Your task to perform on an android device: Open eBay Image 0: 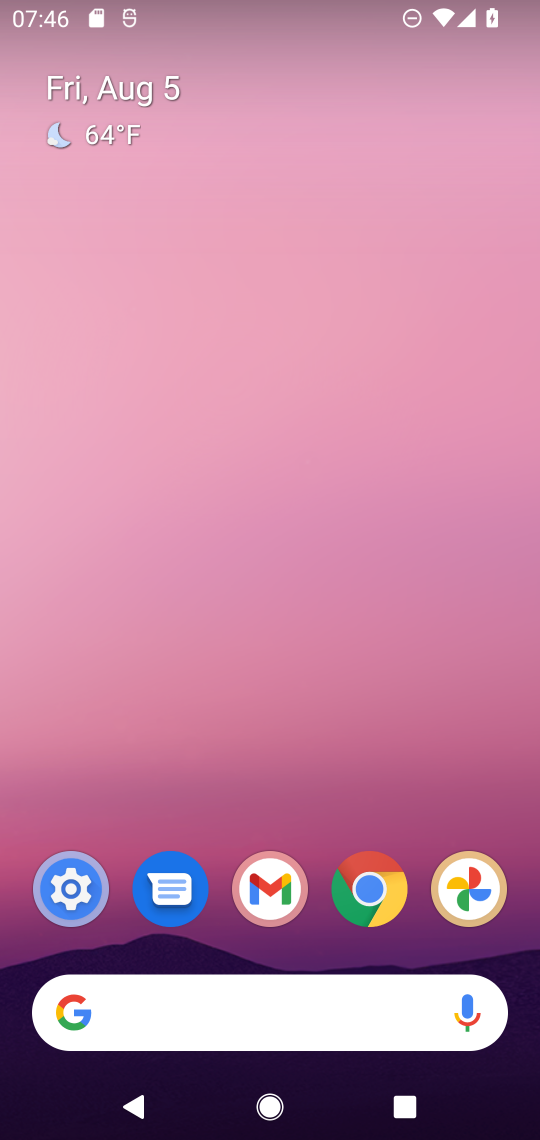
Step 0: click (357, 903)
Your task to perform on an android device: Open eBay Image 1: 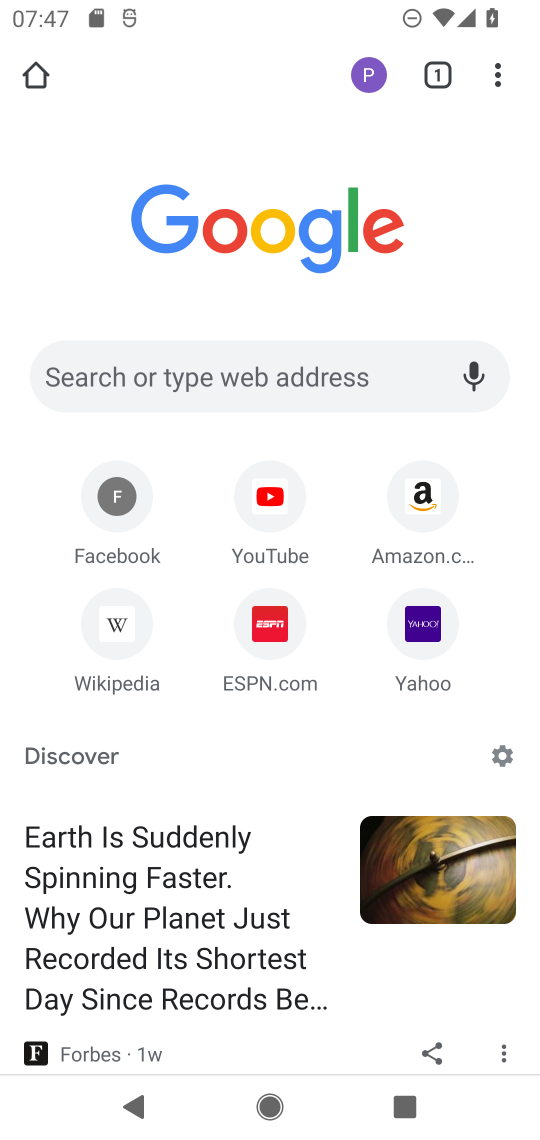
Step 1: click (201, 378)
Your task to perform on an android device: Open eBay Image 2: 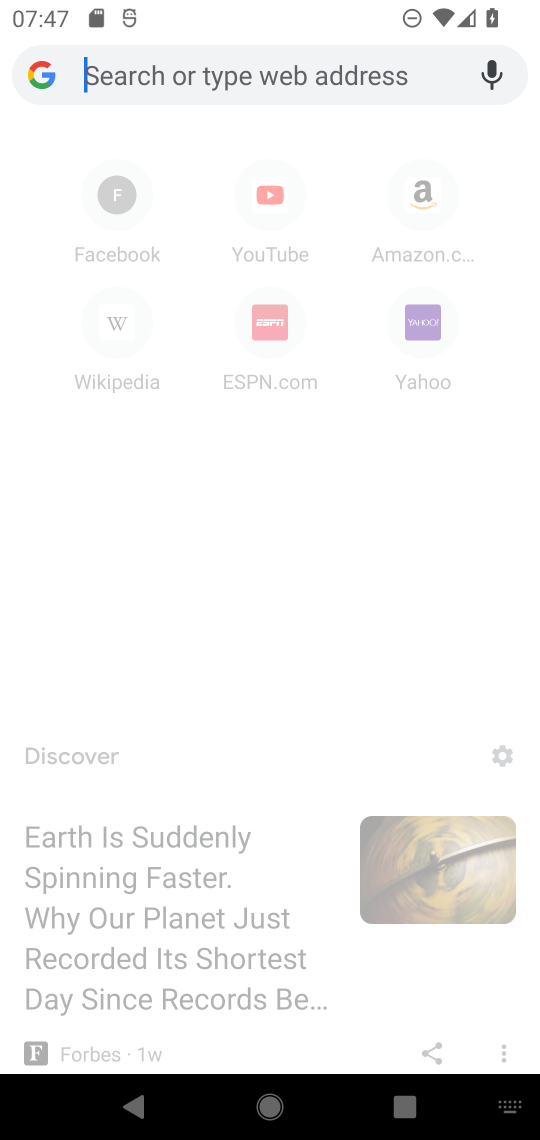
Step 2: type "eBay"
Your task to perform on an android device: Open eBay Image 3: 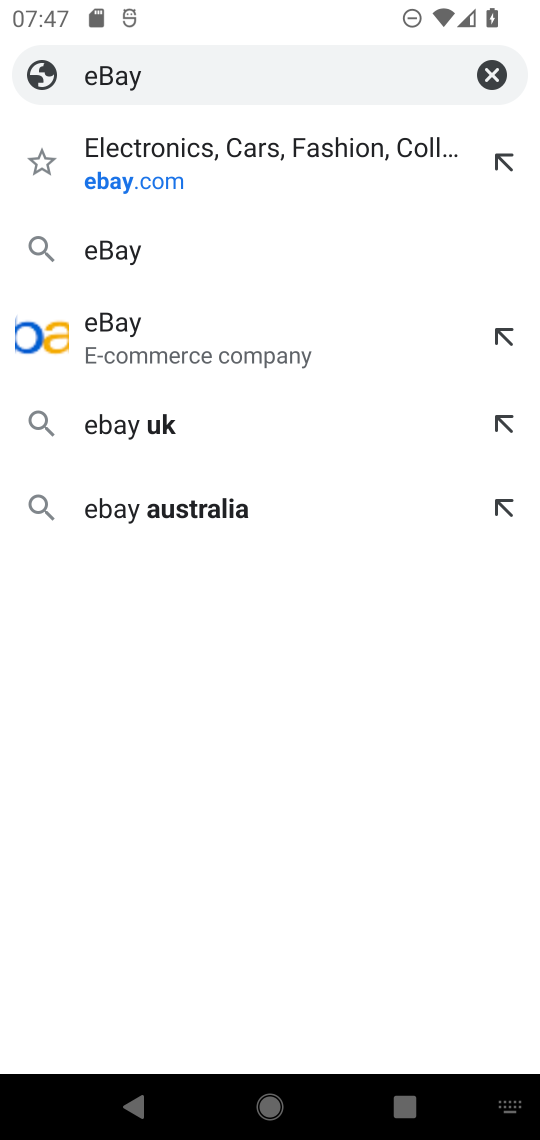
Step 3: click (125, 164)
Your task to perform on an android device: Open eBay Image 4: 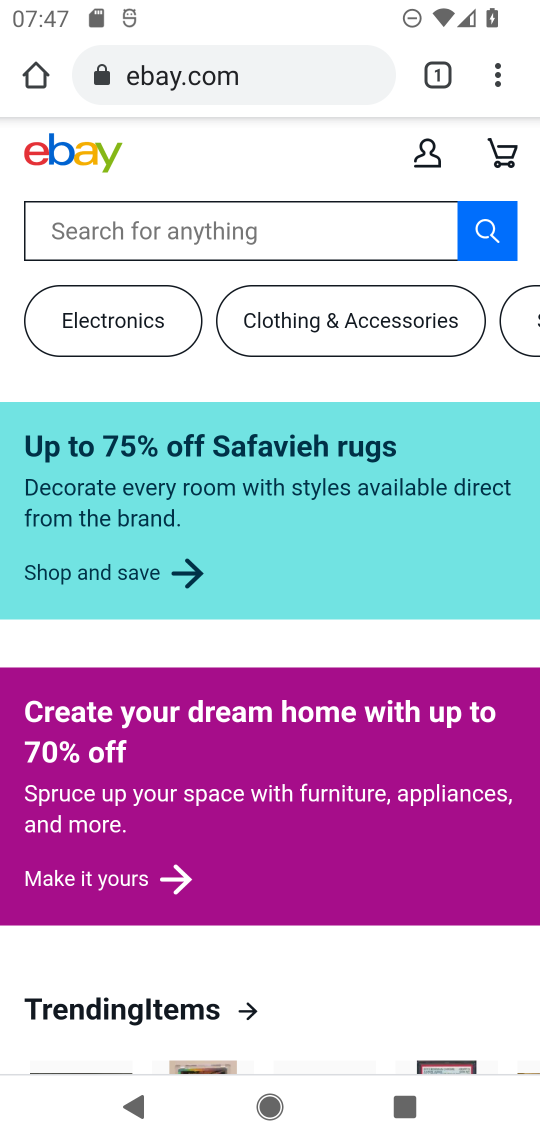
Step 4: task complete